Your task to perform on an android device: Open location settings Image 0: 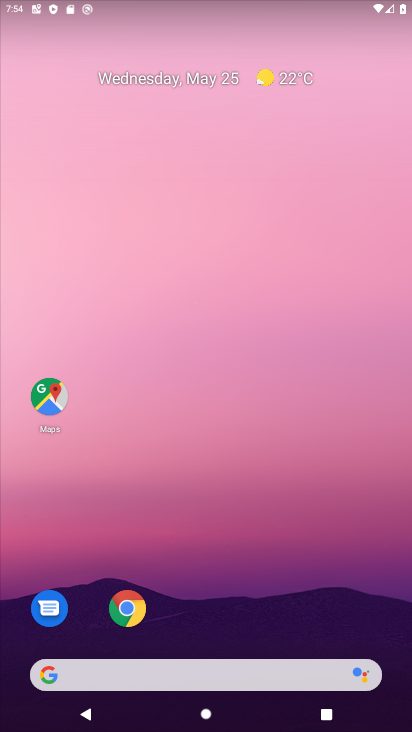
Step 0: drag from (252, 544) to (221, 91)
Your task to perform on an android device: Open location settings Image 1: 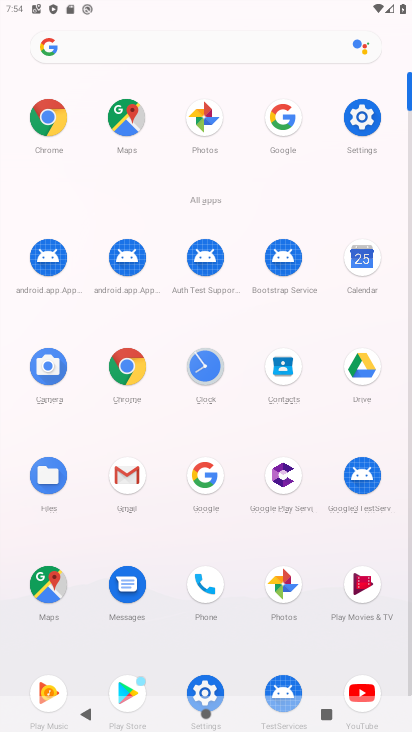
Step 1: click (360, 116)
Your task to perform on an android device: Open location settings Image 2: 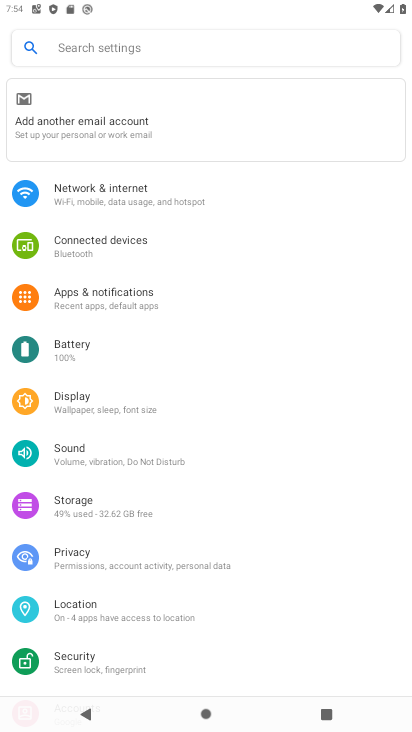
Step 2: click (133, 617)
Your task to perform on an android device: Open location settings Image 3: 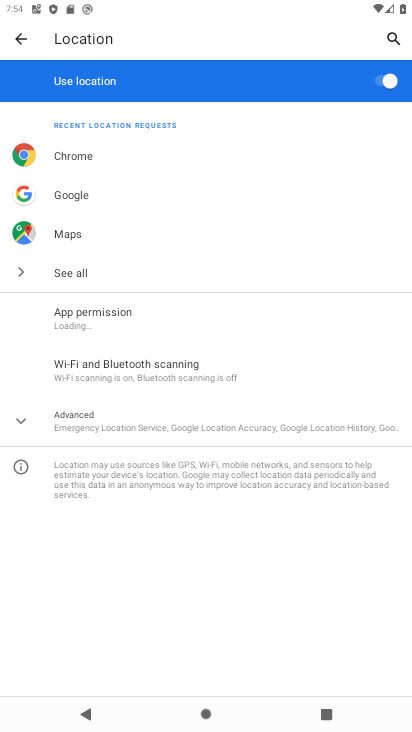
Step 3: task complete